Your task to perform on an android device: Open Maps and search for coffee Image 0: 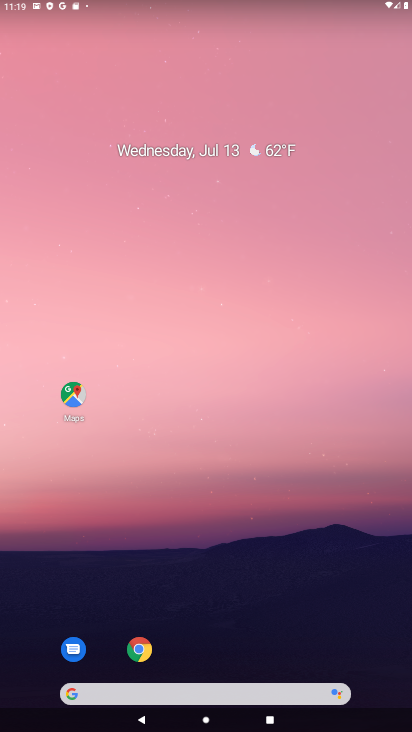
Step 0: drag from (357, 651) to (271, 0)
Your task to perform on an android device: Open Maps and search for coffee Image 1: 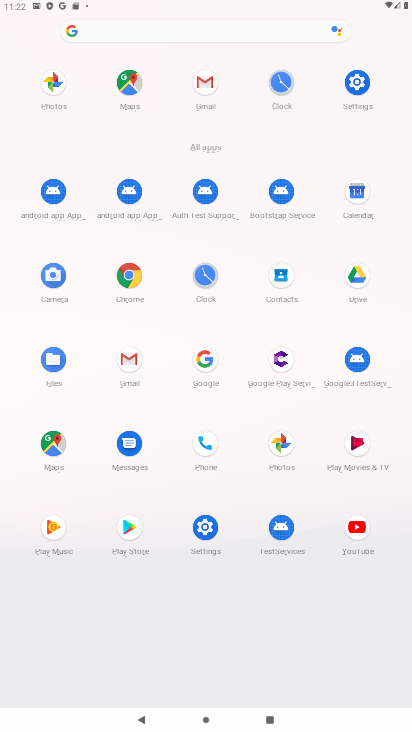
Step 1: click (56, 444)
Your task to perform on an android device: Open Maps and search for coffee Image 2: 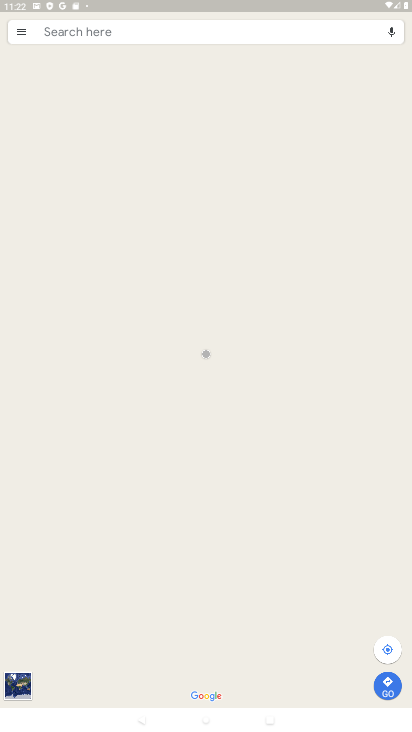
Step 2: click (156, 36)
Your task to perform on an android device: Open Maps and search for coffee Image 3: 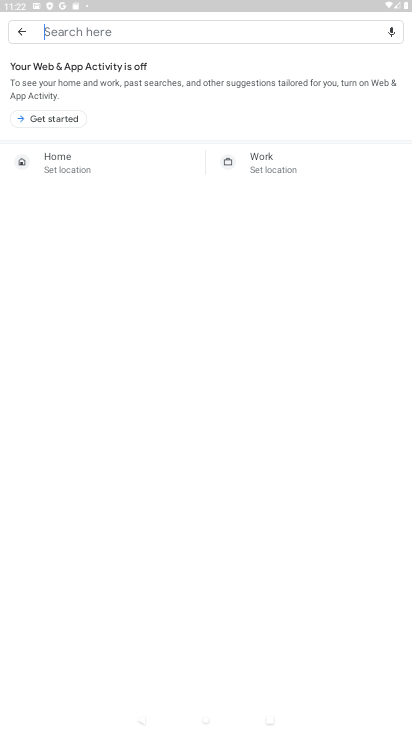
Step 3: click (49, 120)
Your task to perform on an android device: Open Maps and search for coffee Image 4: 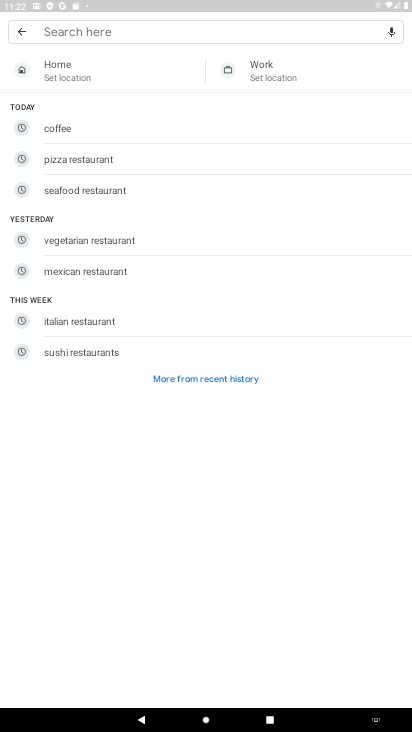
Step 4: click (50, 133)
Your task to perform on an android device: Open Maps and search for coffee Image 5: 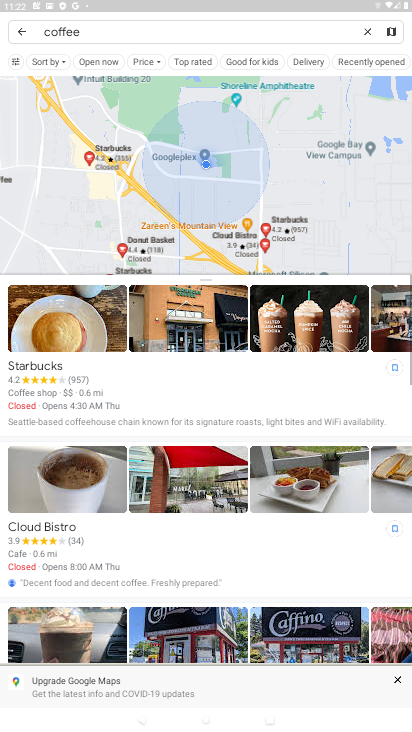
Step 5: task complete